Your task to perform on an android device: empty trash in google photos Image 0: 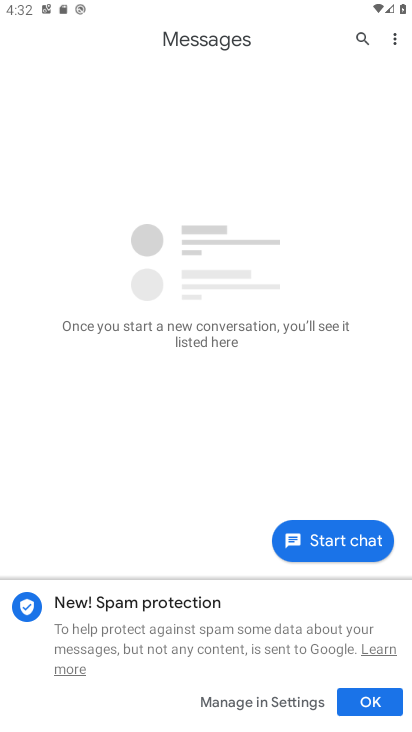
Step 0: press home button
Your task to perform on an android device: empty trash in google photos Image 1: 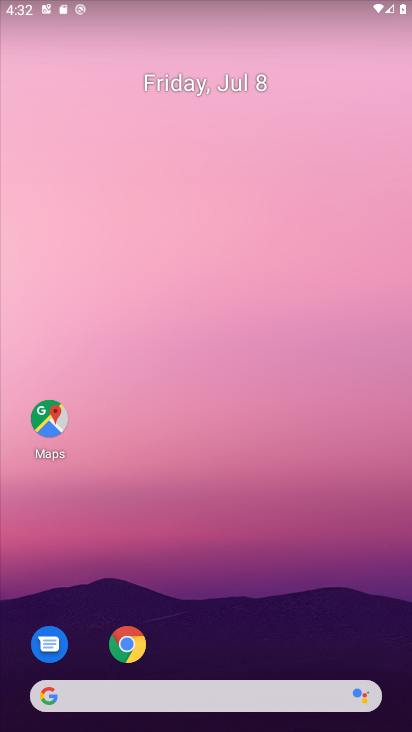
Step 1: drag from (362, 635) to (297, 122)
Your task to perform on an android device: empty trash in google photos Image 2: 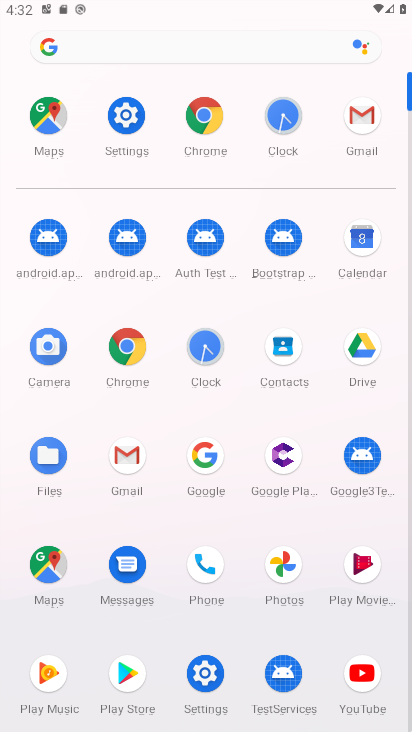
Step 2: click (285, 565)
Your task to perform on an android device: empty trash in google photos Image 3: 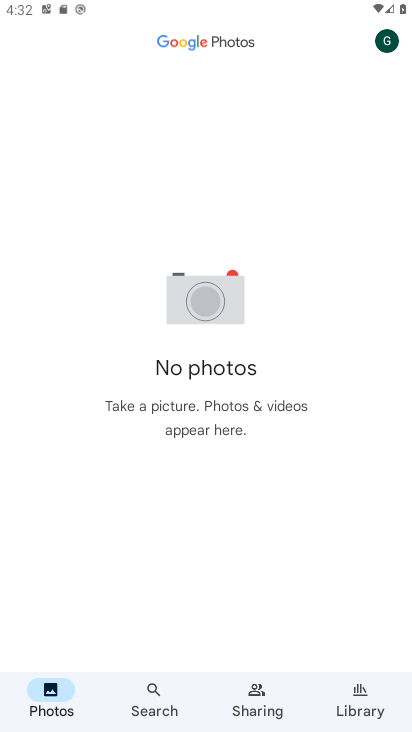
Step 3: click (360, 693)
Your task to perform on an android device: empty trash in google photos Image 4: 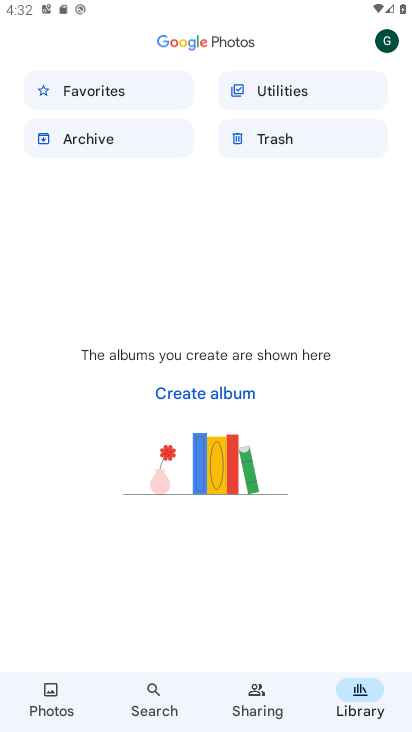
Step 4: click (271, 139)
Your task to perform on an android device: empty trash in google photos Image 5: 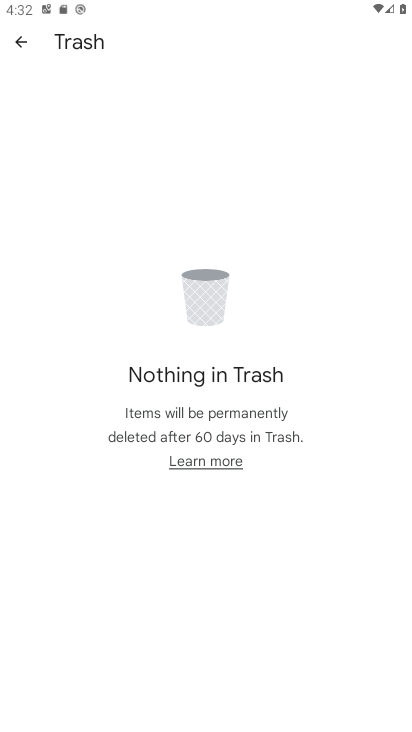
Step 5: task complete